Your task to perform on an android device: turn on javascript in the chrome app Image 0: 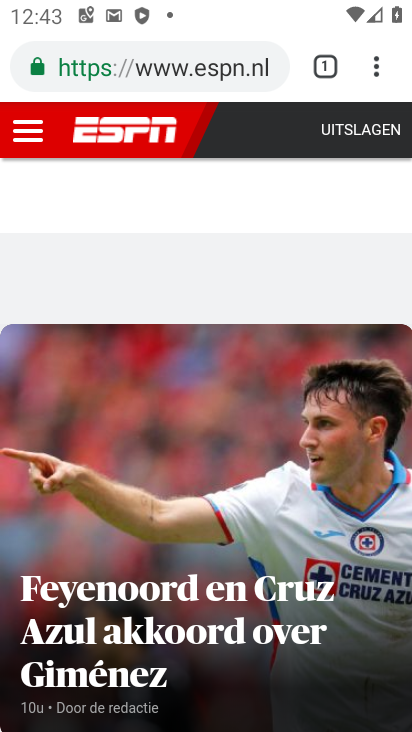
Step 0: press home button
Your task to perform on an android device: turn on javascript in the chrome app Image 1: 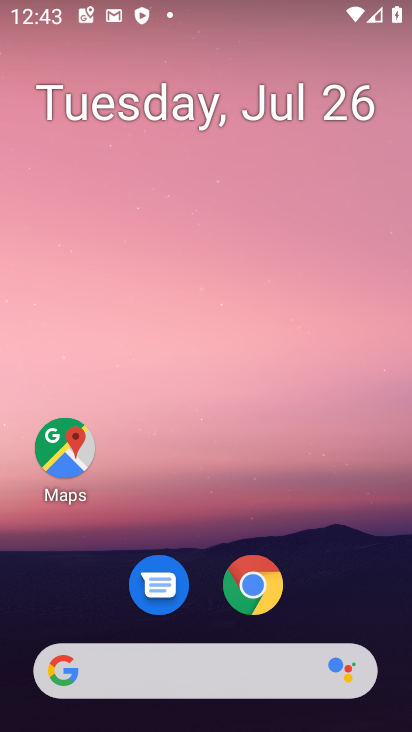
Step 1: click (240, 585)
Your task to perform on an android device: turn on javascript in the chrome app Image 2: 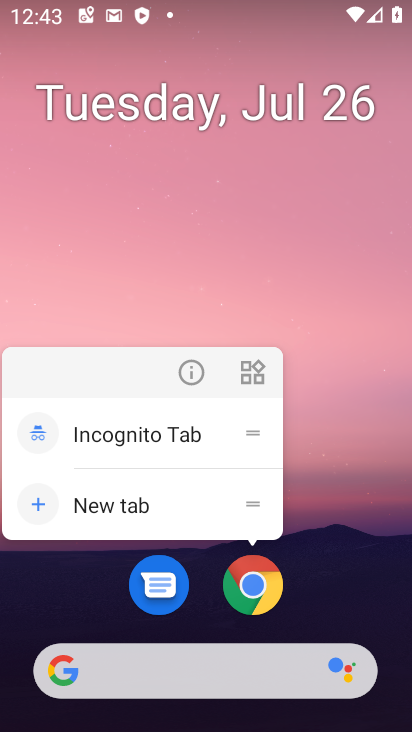
Step 2: click (253, 579)
Your task to perform on an android device: turn on javascript in the chrome app Image 3: 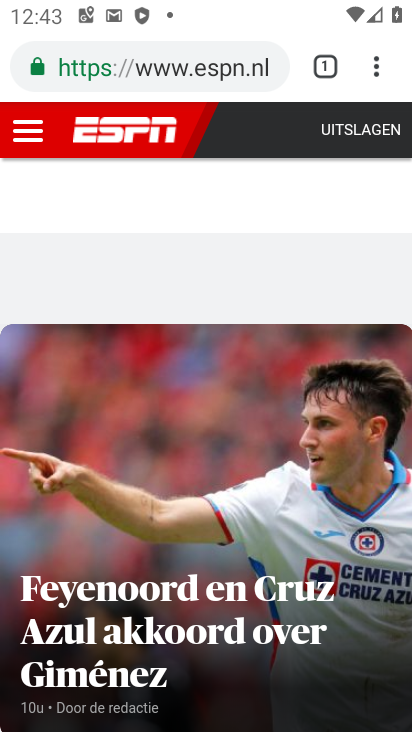
Step 3: drag from (371, 71) to (242, 590)
Your task to perform on an android device: turn on javascript in the chrome app Image 4: 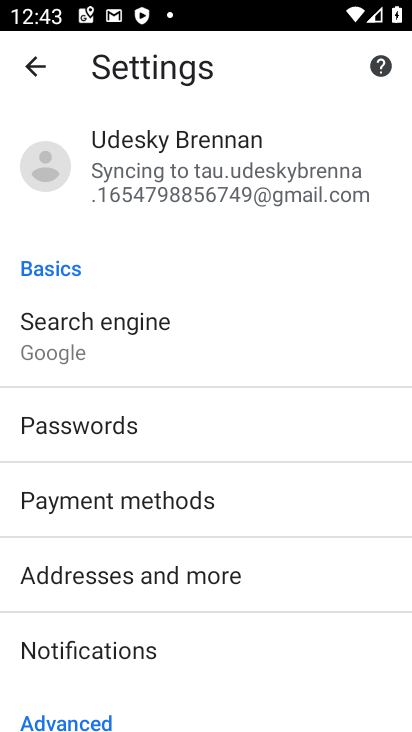
Step 4: drag from (190, 660) to (307, 223)
Your task to perform on an android device: turn on javascript in the chrome app Image 5: 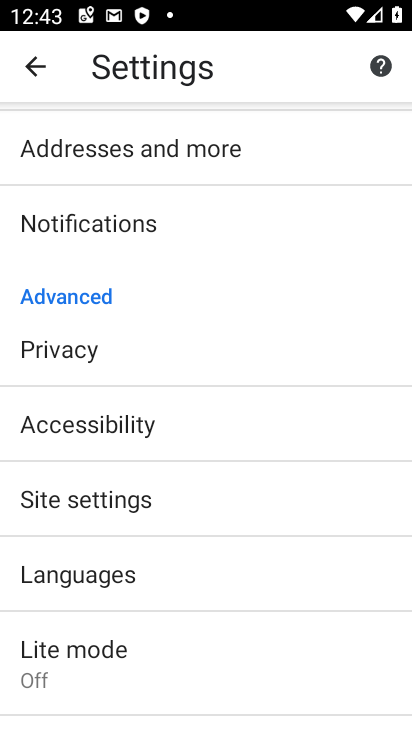
Step 5: click (123, 487)
Your task to perform on an android device: turn on javascript in the chrome app Image 6: 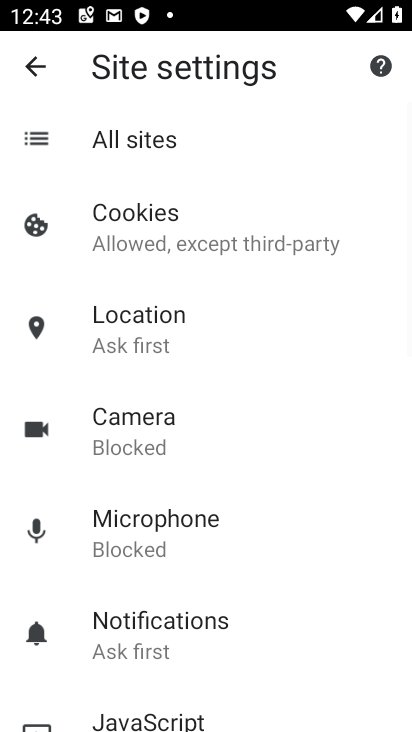
Step 6: drag from (229, 667) to (334, 186)
Your task to perform on an android device: turn on javascript in the chrome app Image 7: 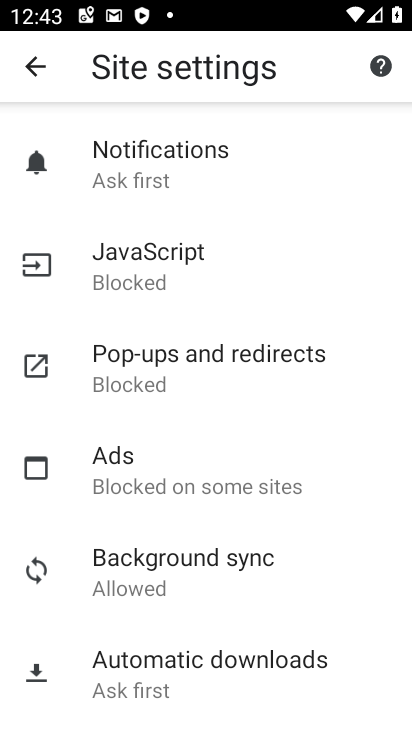
Step 7: click (121, 363)
Your task to perform on an android device: turn on javascript in the chrome app Image 8: 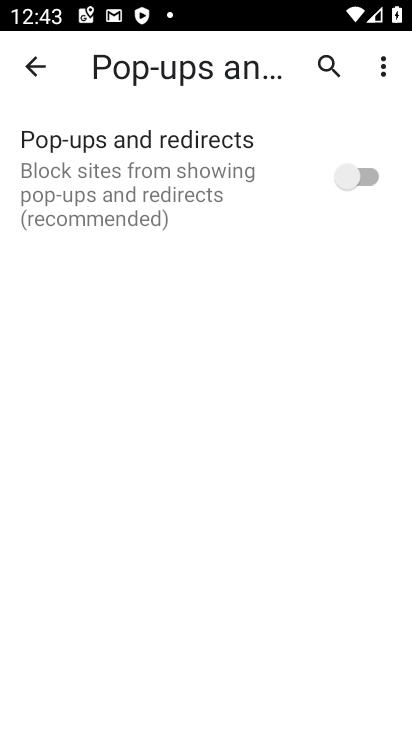
Step 8: click (35, 61)
Your task to perform on an android device: turn on javascript in the chrome app Image 9: 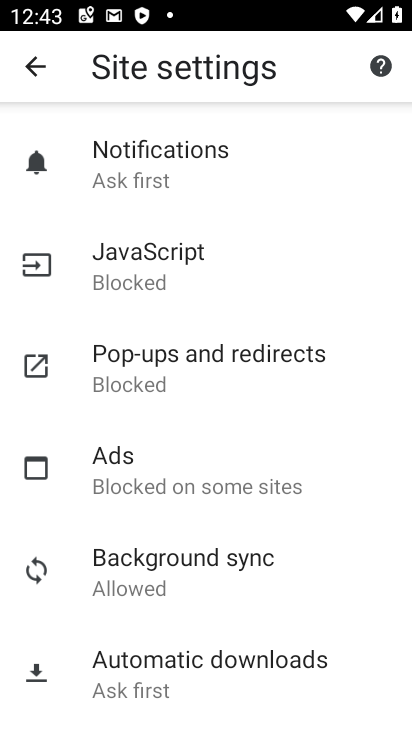
Step 9: click (113, 271)
Your task to perform on an android device: turn on javascript in the chrome app Image 10: 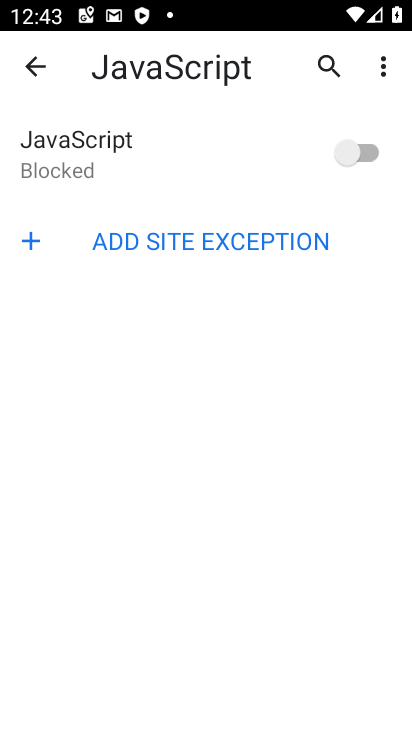
Step 10: click (370, 151)
Your task to perform on an android device: turn on javascript in the chrome app Image 11: 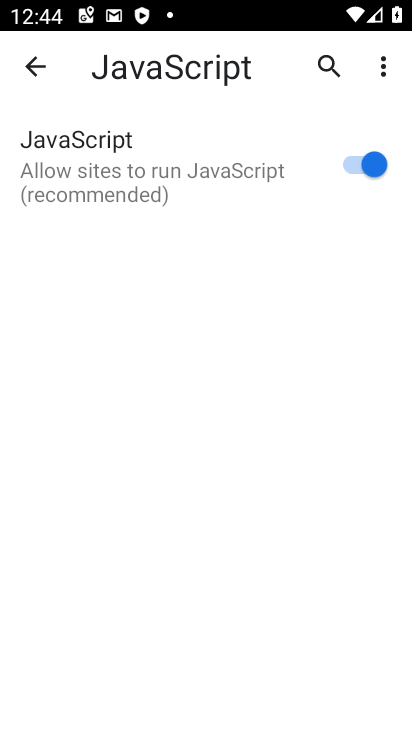
Step 11: task complete